Your task to perform on an android device: Search for vegetarian restaurants on Maps Image 0: 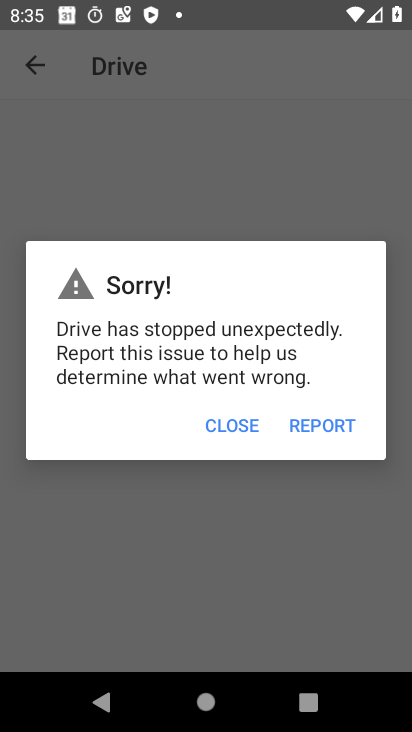
Step 0: press home button
Your task to perform on an android device: Search for vegetarian restaurants on Maps Image 1: 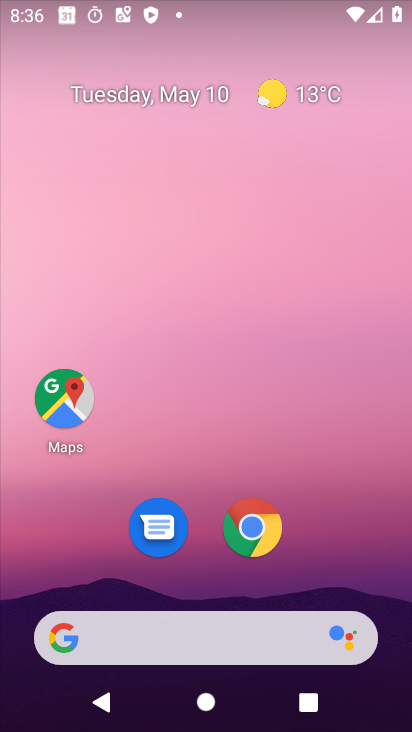
Step 1: click (77, 401)
Your task to perform on an android device: Search for vegetarian restaurants on Maps Image 2: 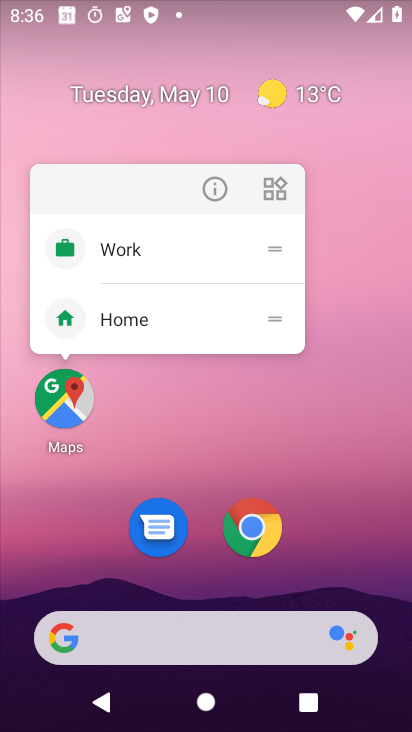
Step 2: click (211, 201)
Your task to perform on an android device: Search for vegetarian restaurants on Maps Image 3: 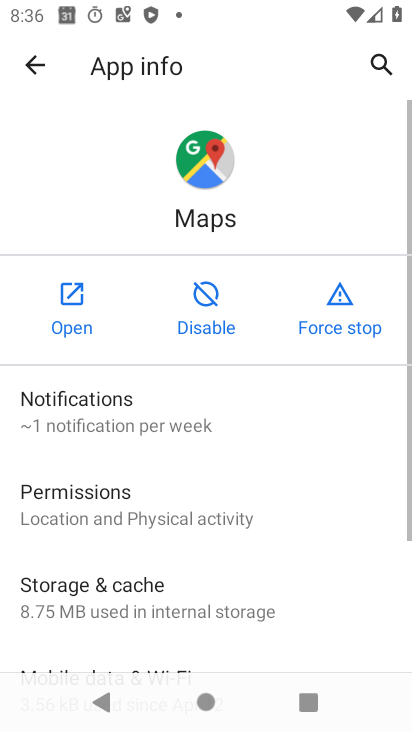
Step 3: click (72, 307)
Your task to perform on an android device: Search for vegetarian restaurants on Maps Image 4: 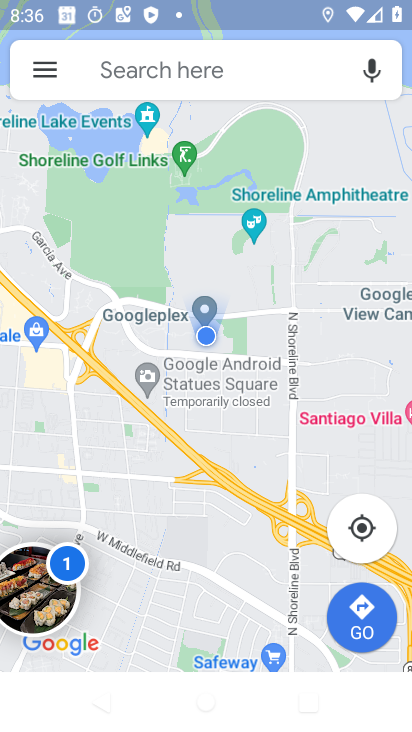
Step 4: click (205, 63)
Your task to perform on an android device: Search for vegetarian restaurants on Maps Image 5: 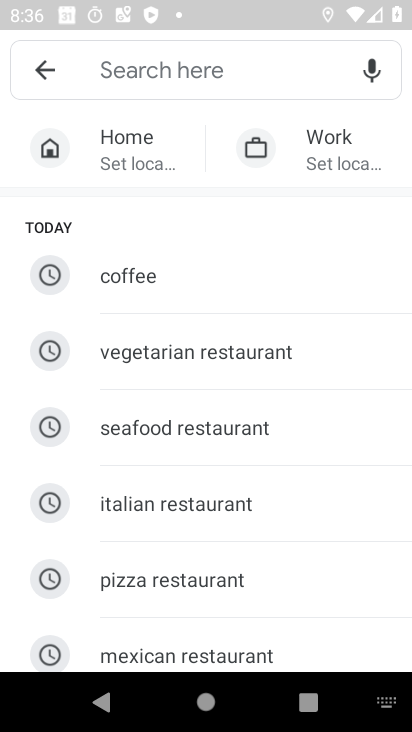
Step 5: click (122, 367)
Your task to perform on an android device: Search for vegetarian restaurants on Maps Image 6: 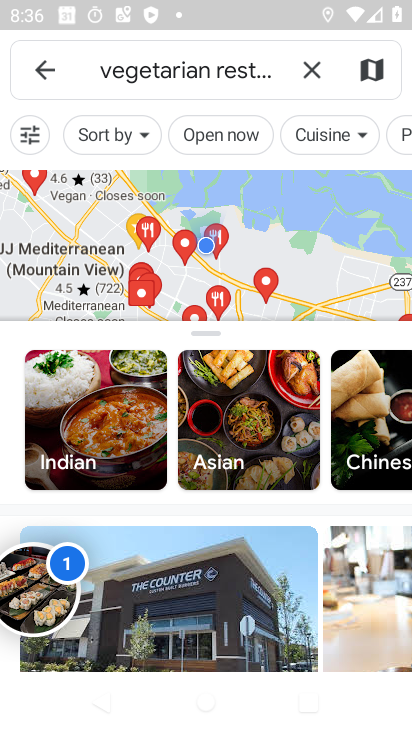
Step 6: task complete